Your task to perform on an android device: uninstall "Paramount+ | Peak Streaming" Image 0: 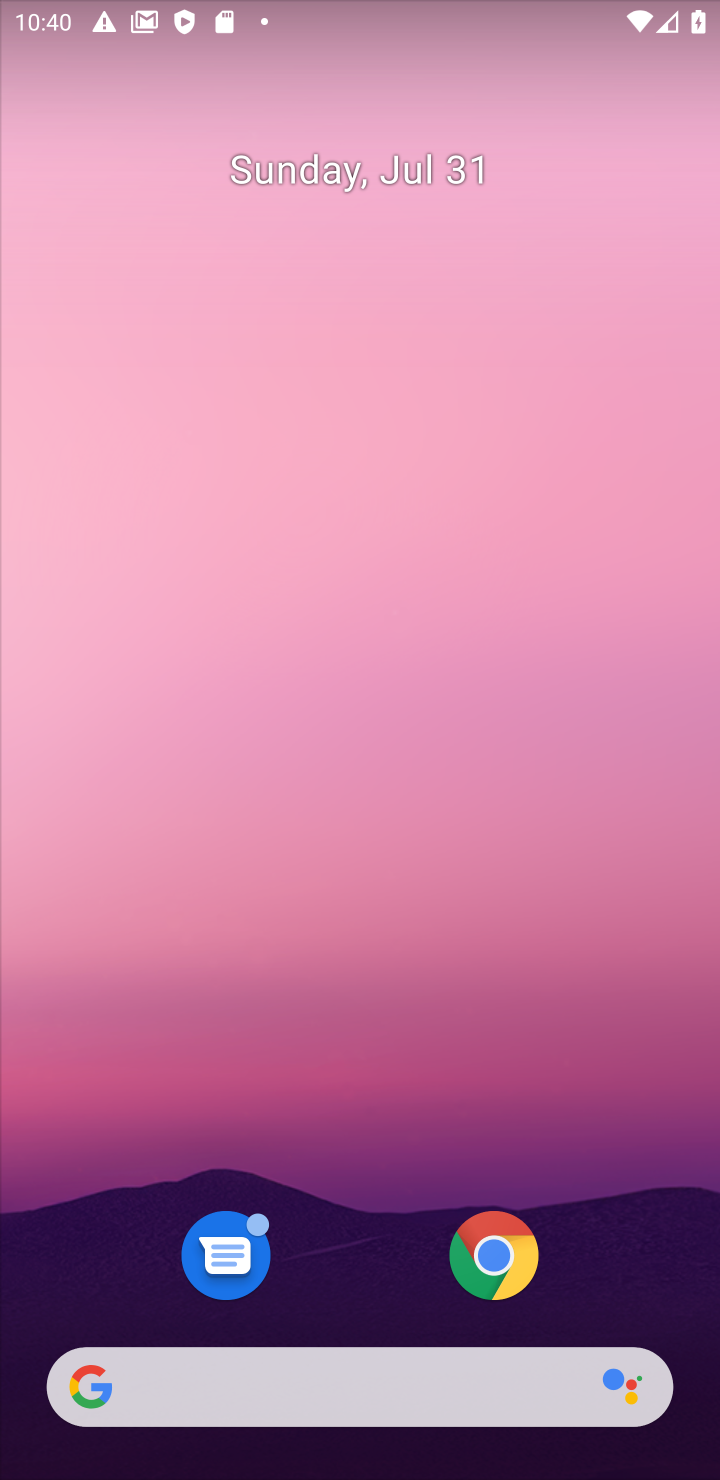
Step 0: drag from (314, 1328) to (697, 309)
Your task to perform on an android device: uninstall "Paramount+ | Peak Streaming" Image 1: 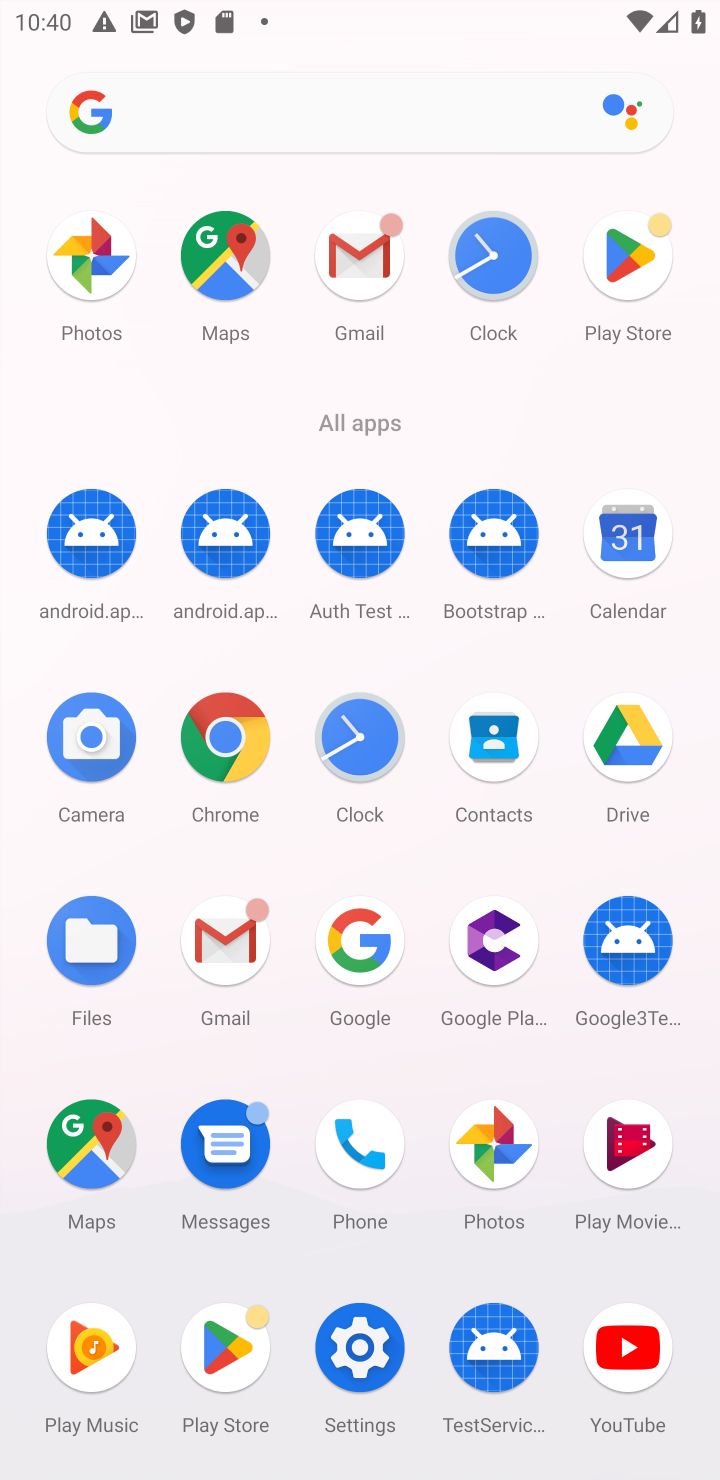
Step 1: click (226, 1329)
Your task to perform on an android device: uninstall "Paramount+ | Peak Streaming" Image 2: 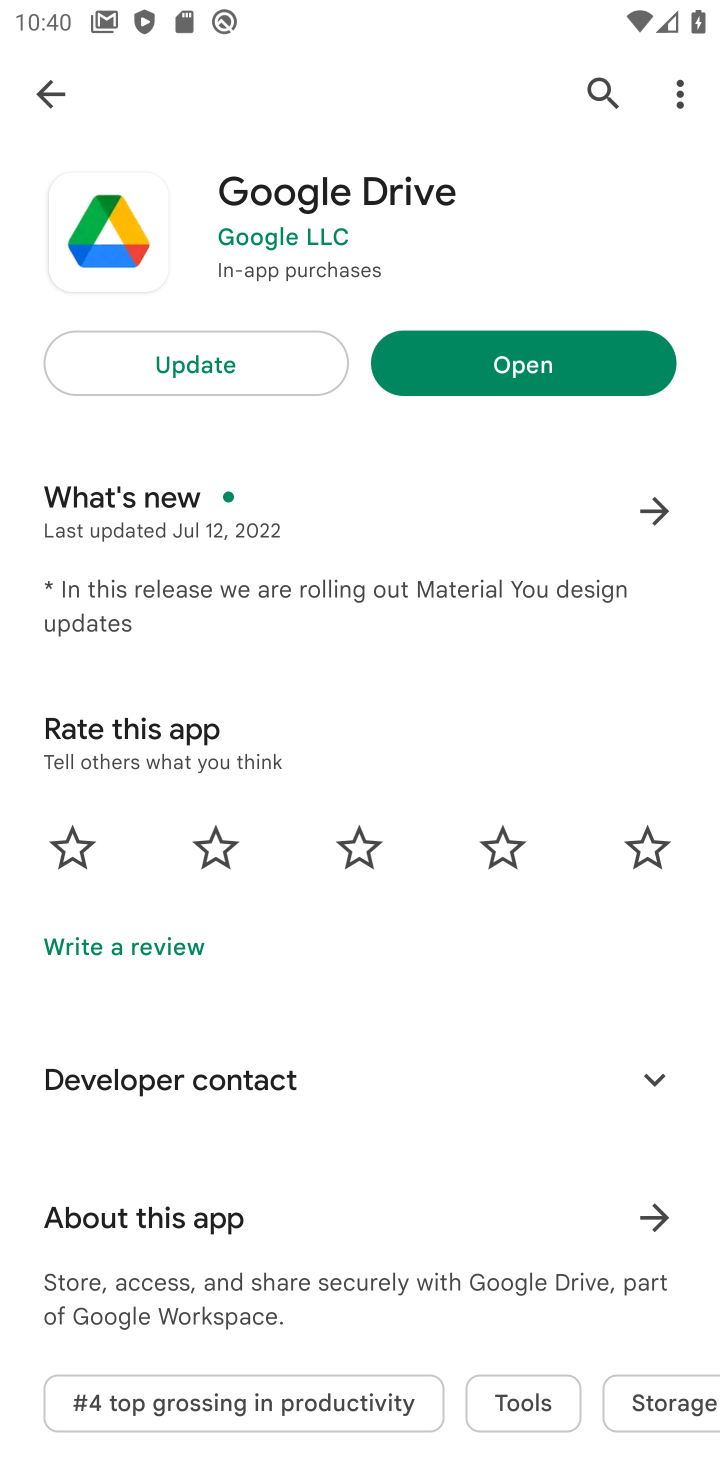
Step 2: click (42, 106)
Your task to perform on an android device: uninstall "Paramount+ | Peak Streaming" Image 3: 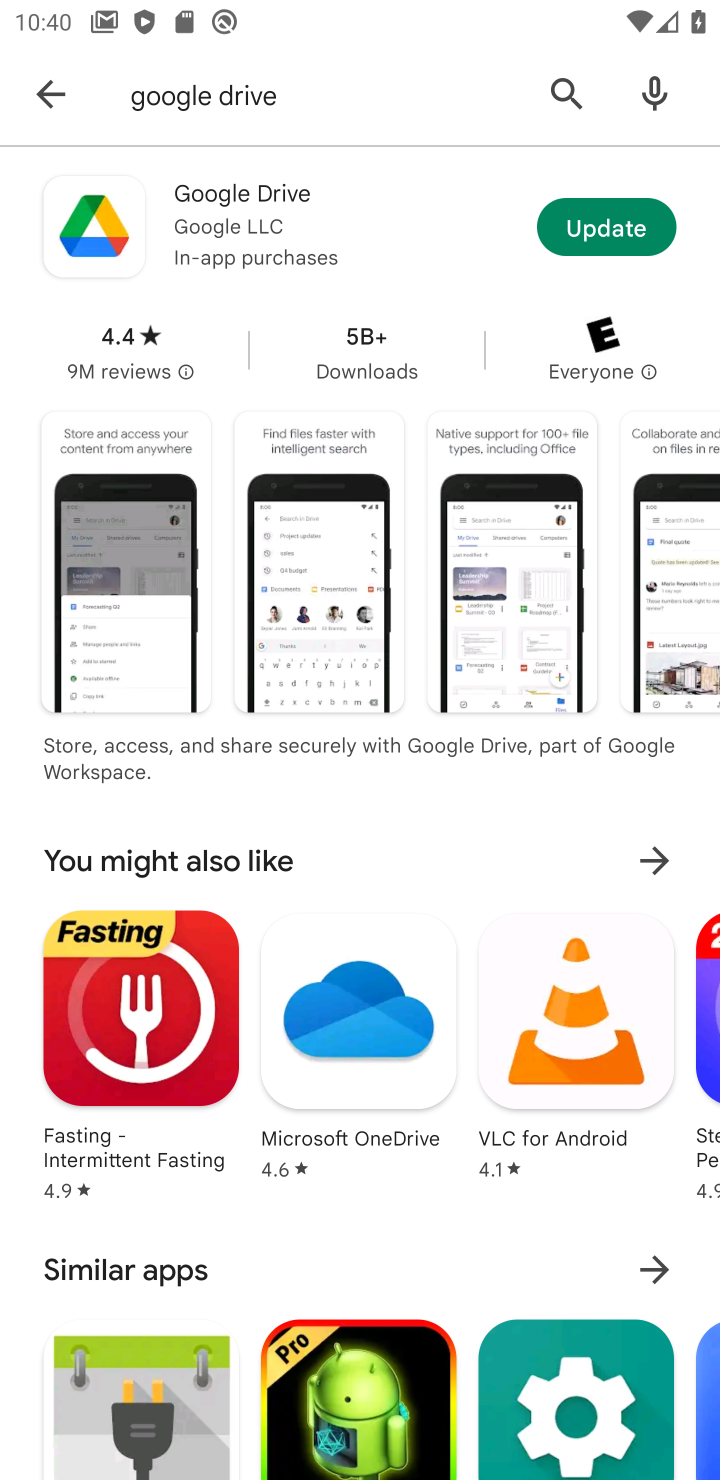
Step 3: click (57, 95)
Your task to perform on an android device: uninstall "Paramount+ | Peak Streaming" Image 4: 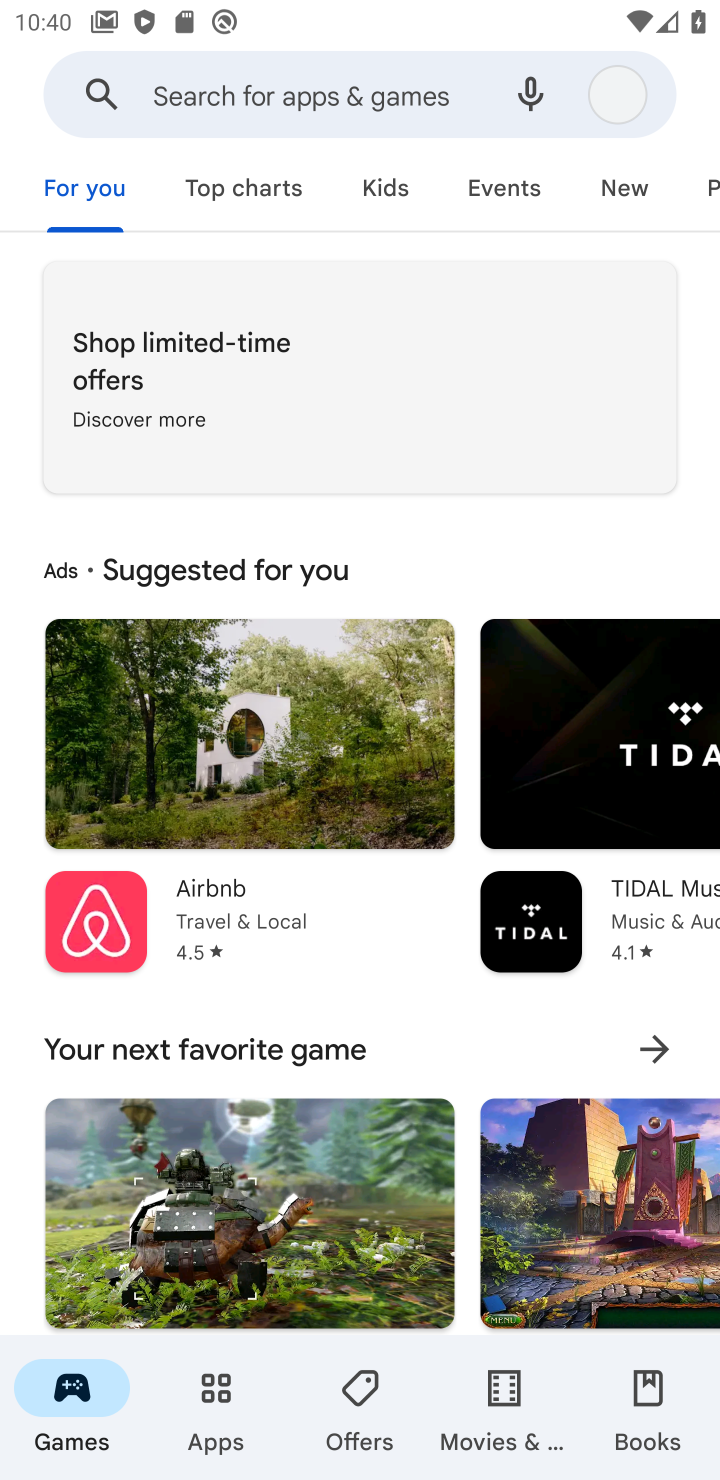
Step 4: click (218, 97)
Your task to perform on an android device: uninstall "Paramount+ | Peak Streaming" Image 5: 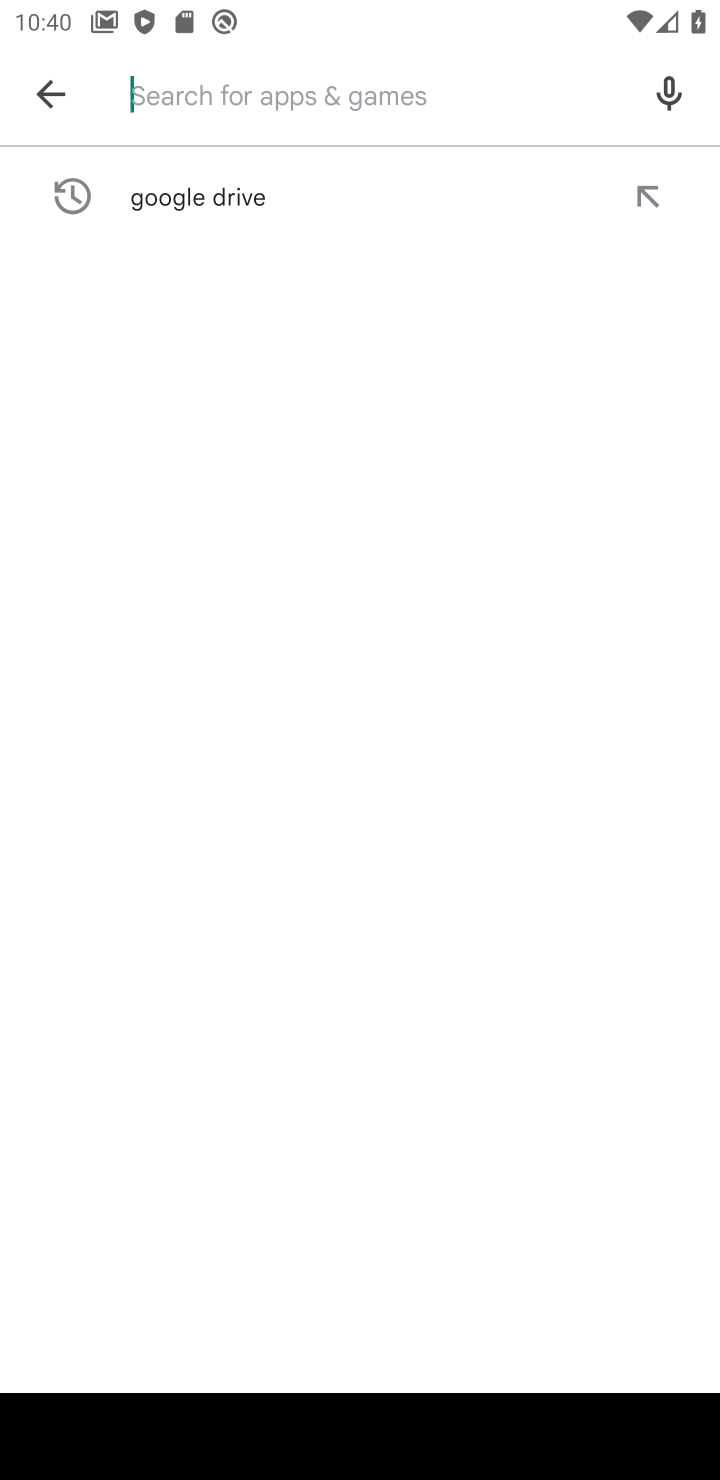
Step 5: type "Paramount+"
Your task to perform on an android device: uninstall "Paramount+ | Peak Streaming" Image 6: 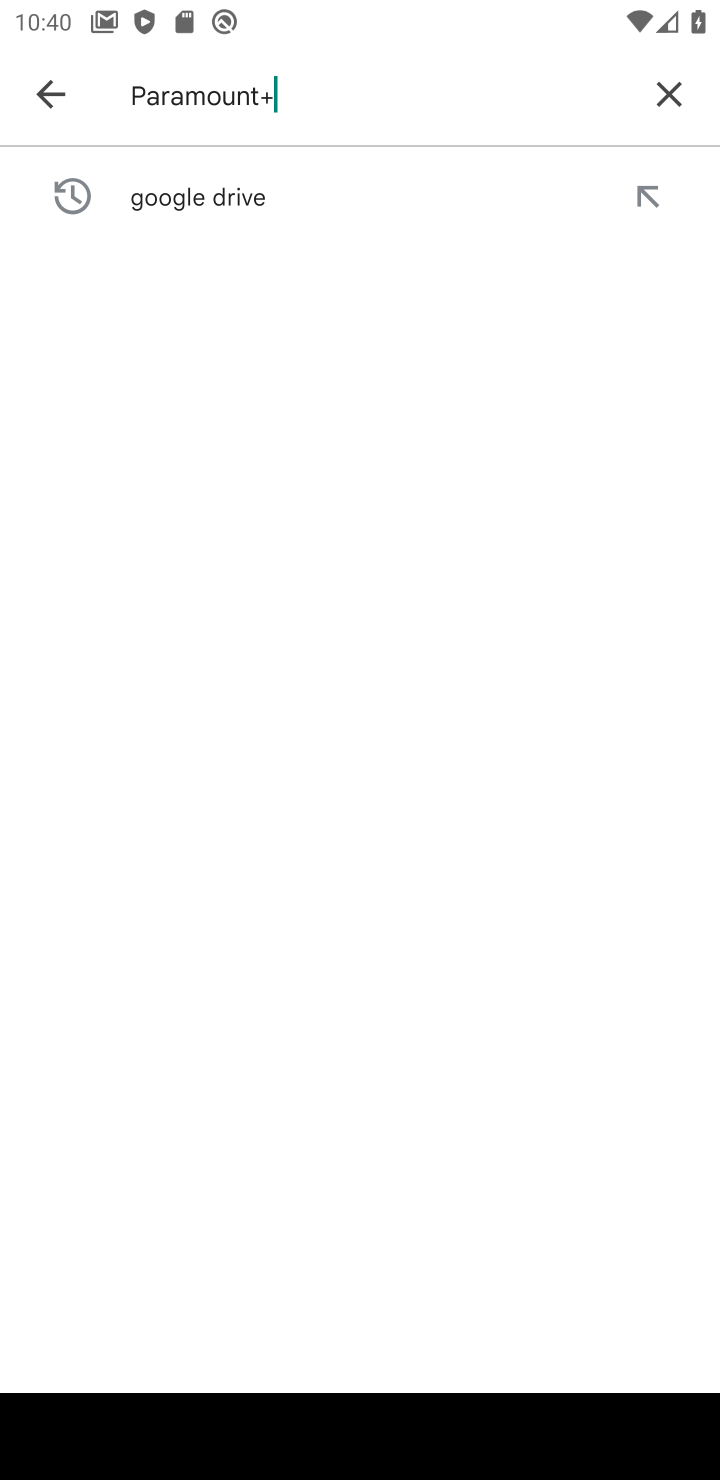
Step 6: type ""
Your task to perform on an android device: uninstall "Paramount+ | Peak Streaming" Image 7: 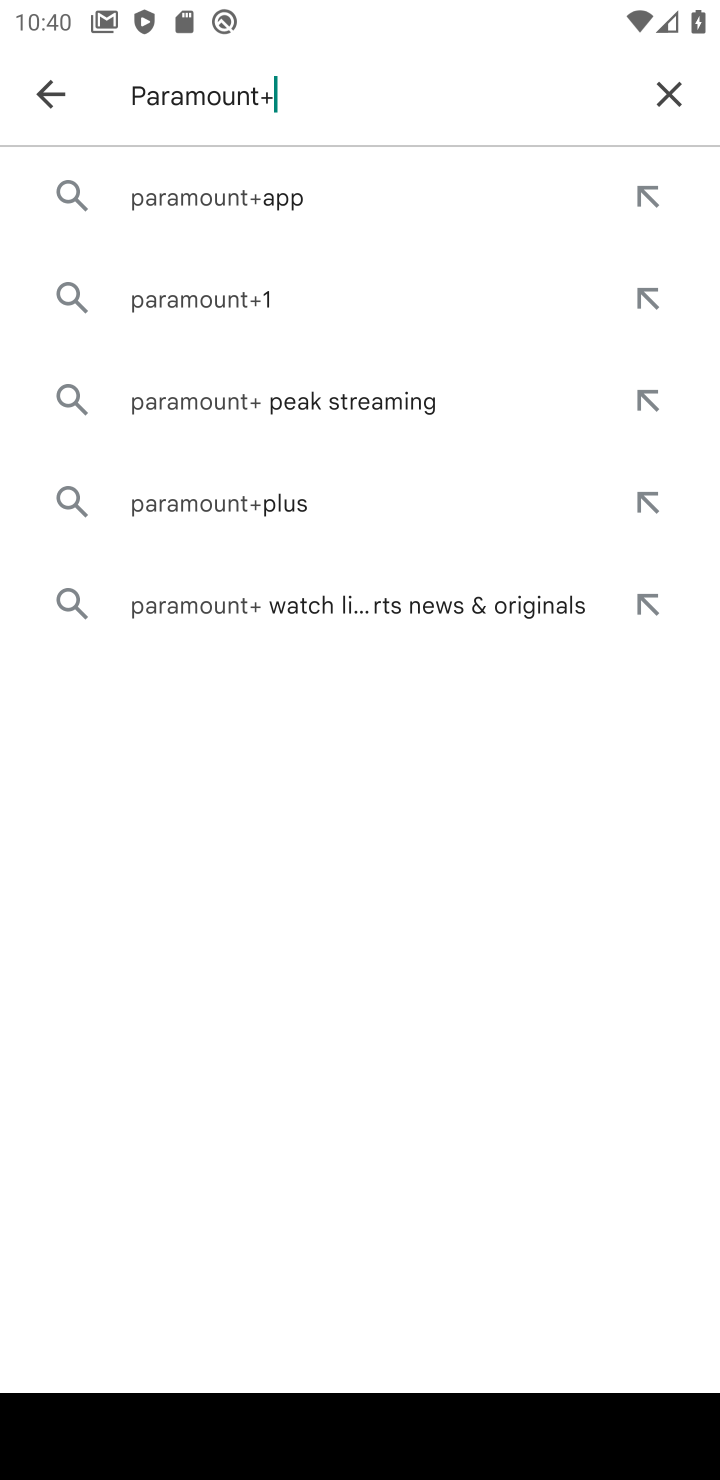
Step 7: click (296, 193)
Your task to perform on an android device: uninstall "Paramount+ | Peak Streaming" Image 8: 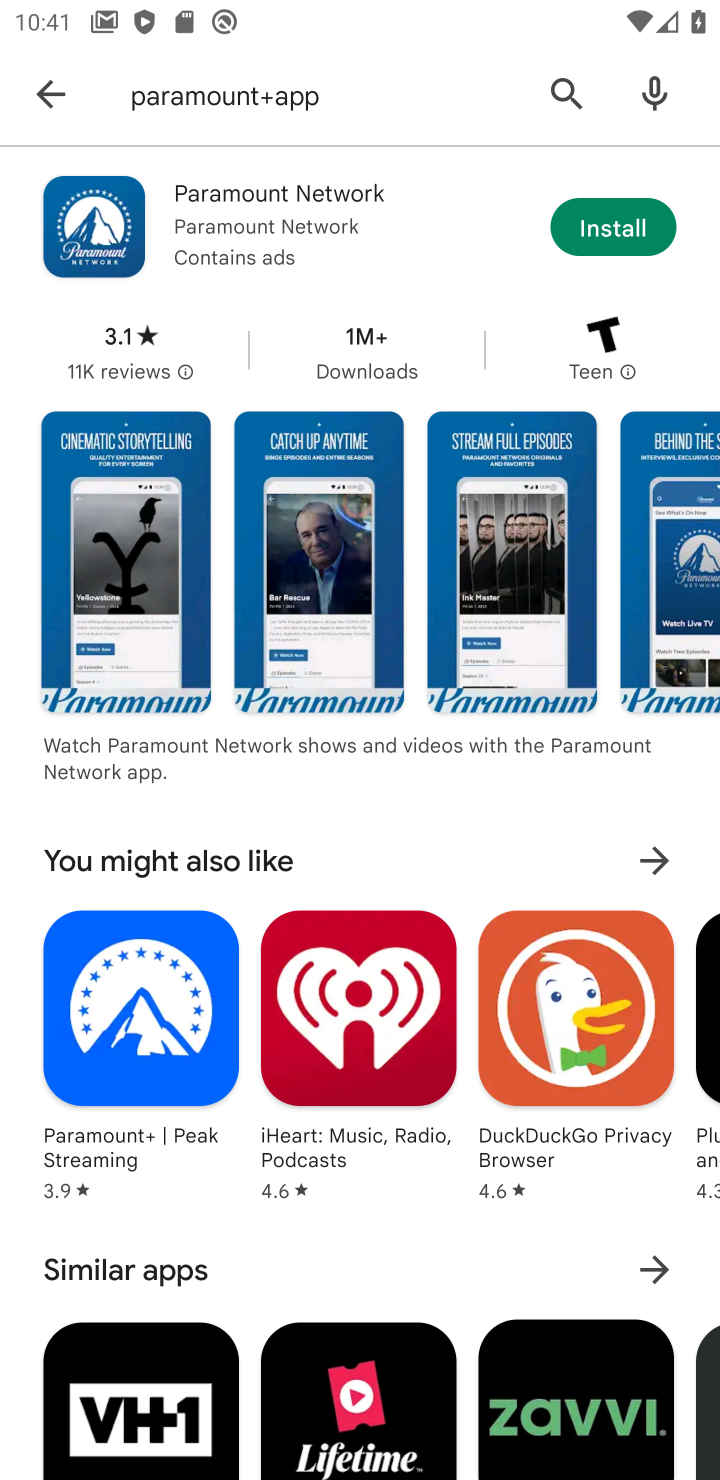
Step 8: click (285, 213)
Your task to perform on an android device: uninstall "Paramount+ | Peak Streaming" Image 9: 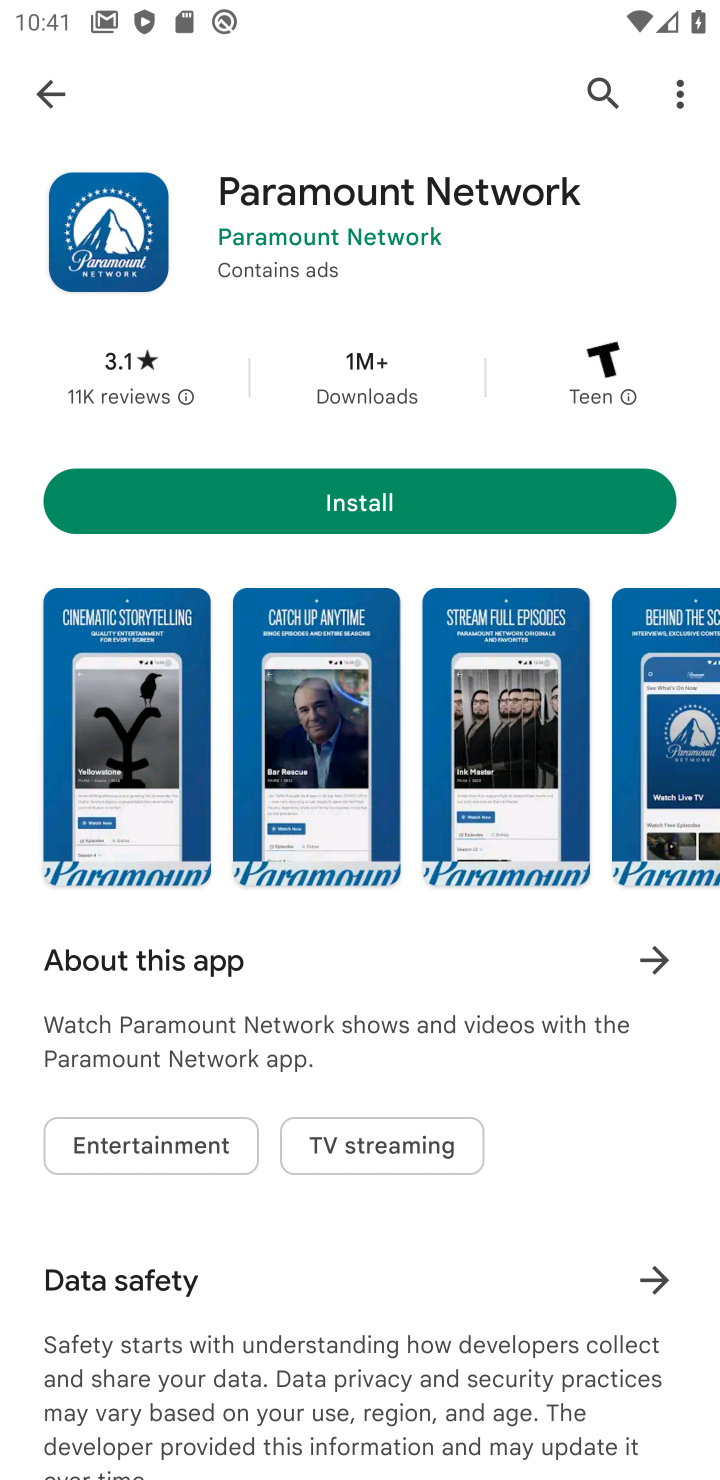
Step 9: task complete